Your task to perform on an android device: check google app version Image 0: 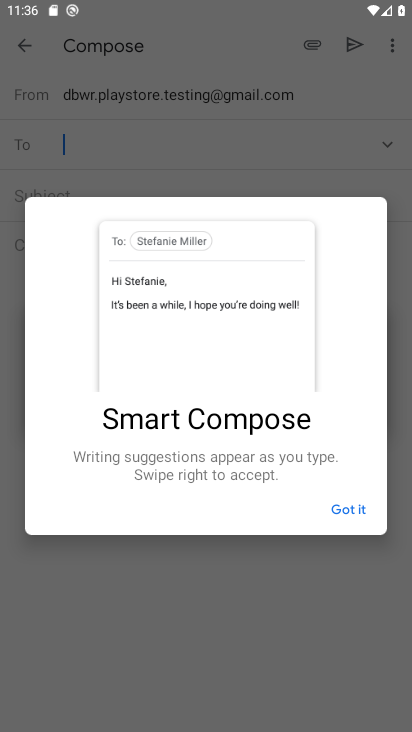
Step 0: press home button
Your task to perform on an android device: check google app version Image 1: 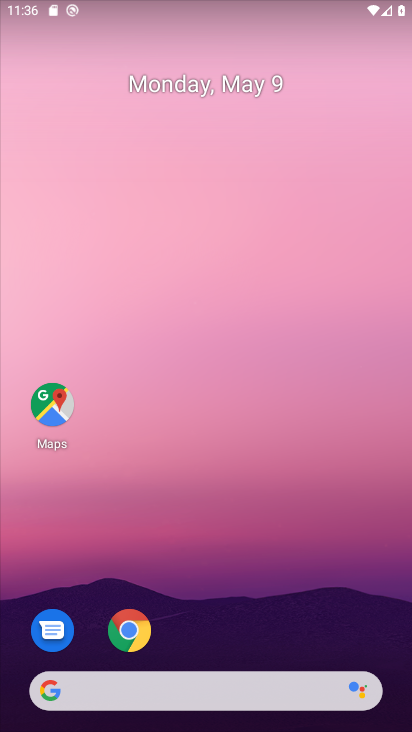
Step 1: drag from (199, 589) to (118, 169)
Your task to perform on an android device: check google app version Image 2: 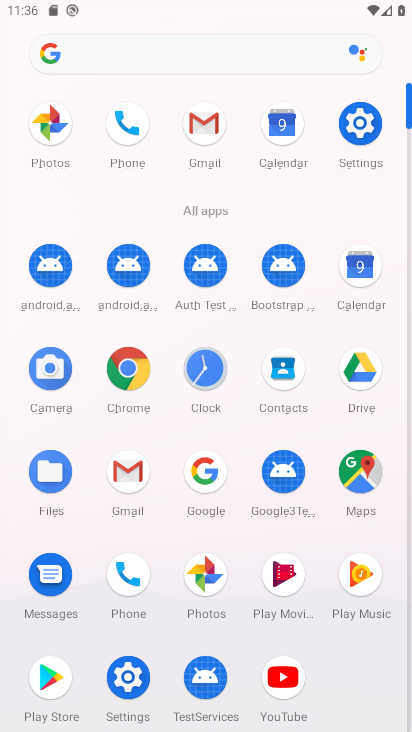
Step 2: click (211, 480)
Your task to perform on an android device: check google app version Image 3: 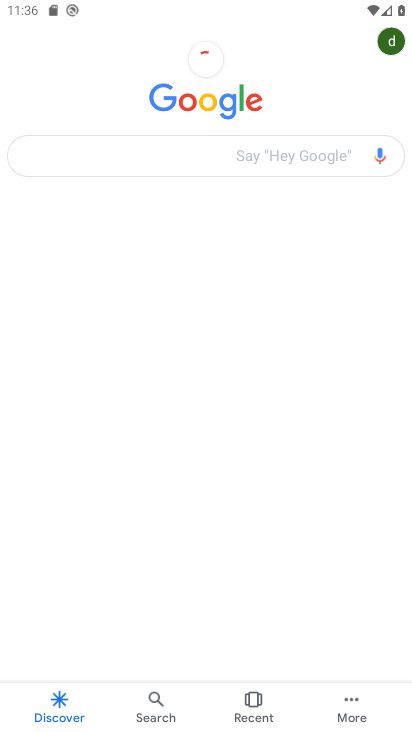
Step 3: click (352, 704)
Your task to perform on an android device: check google app version Image 4: 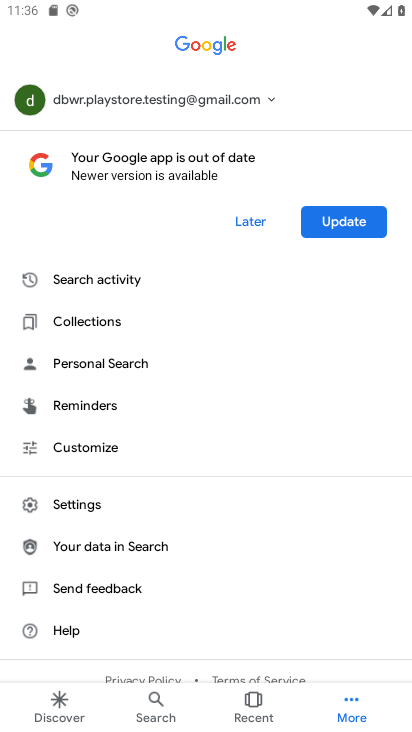
Step 4: click (77, 508)
Your task to perform on an android device: check google app version Image 5: 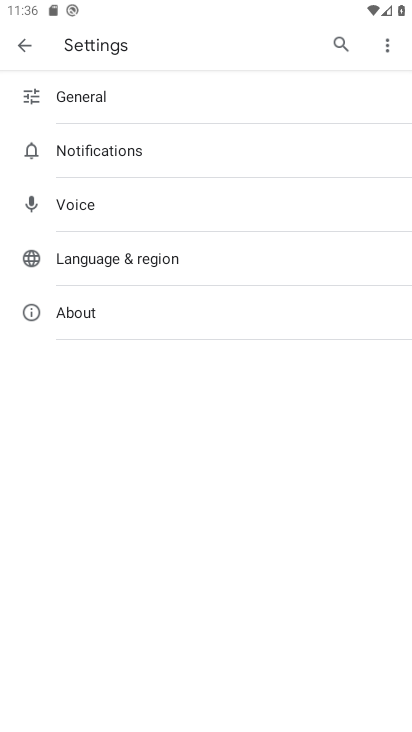
Step 5: click (43, 303)
Your task to perform on an android device: check google app version Image 6: 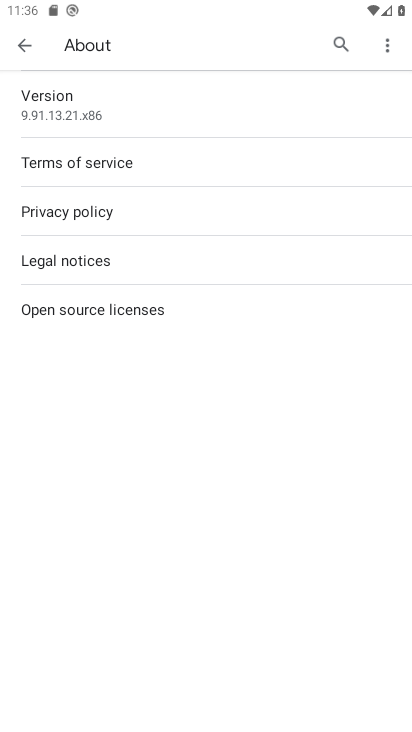
Step 6: task complete